Your task to perform on an android device: What's on my calendar tomorrow? Image 0: 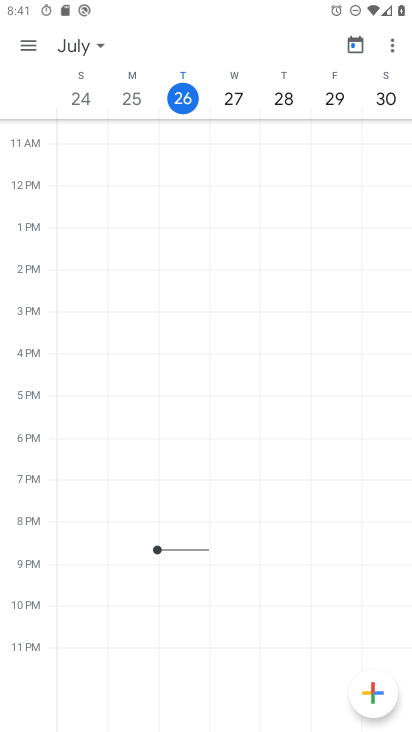
Step 0: click (227, 99)
Your task to perform on an android device: What's on my calendar tomorrow? Image 1: 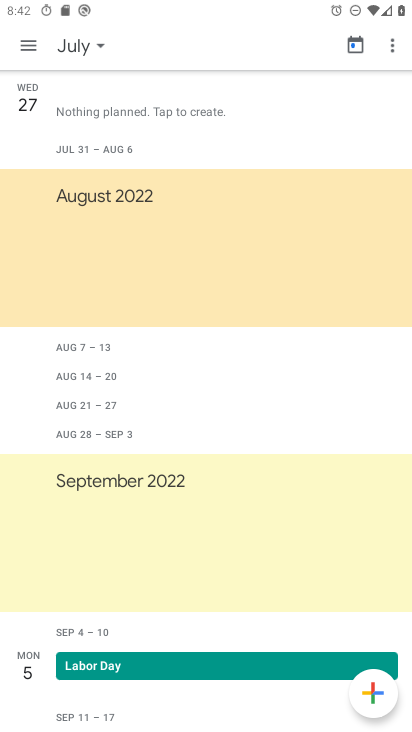
Step 1: click (33, 63)
Your task to perform on an android device: What's on my calendar tomorrow? Image 2: 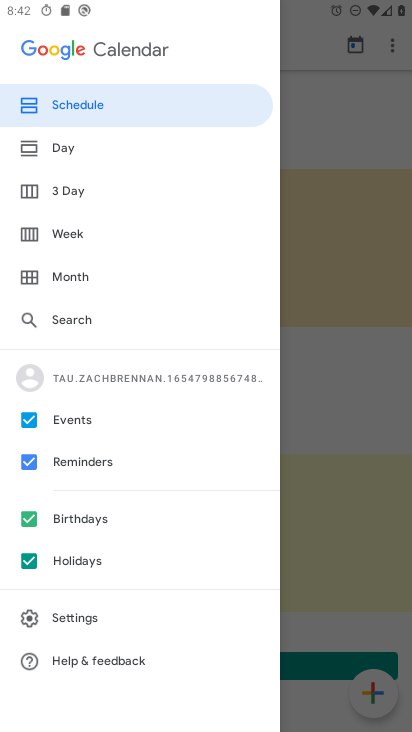
Step 2: click (51, 151)
Your task to perform on an android device: What's on my calendar tomorrow? Image 3: 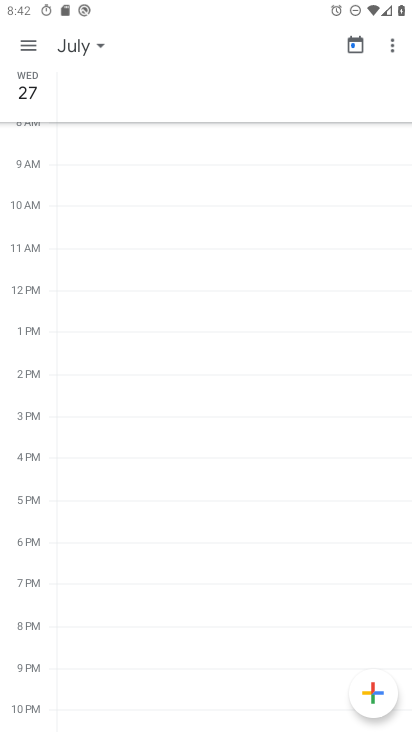
Step 3: click (85, 44)
Your task to perform on an android device: What's on my calendar tomorrow? Image 4: 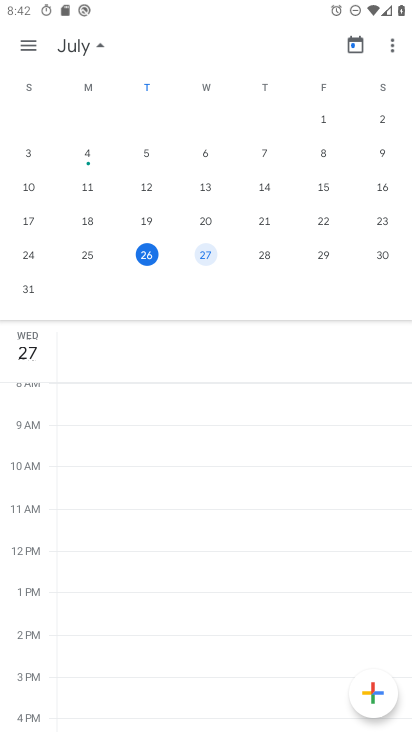
Step 4: drag from (210, 249) to (265, 258)
Your task to perform on an android device: What's on my calendar tomorrow? Image 5: 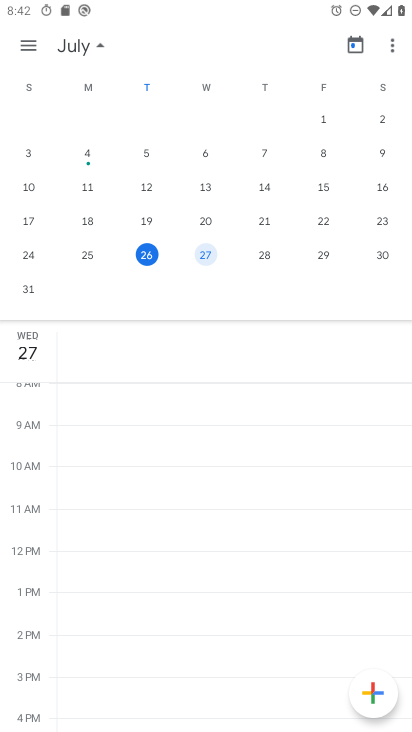
Step 5: click (262, 259)
Your task to perform on an android device: What's on my calendar tomorrow? Image 6: 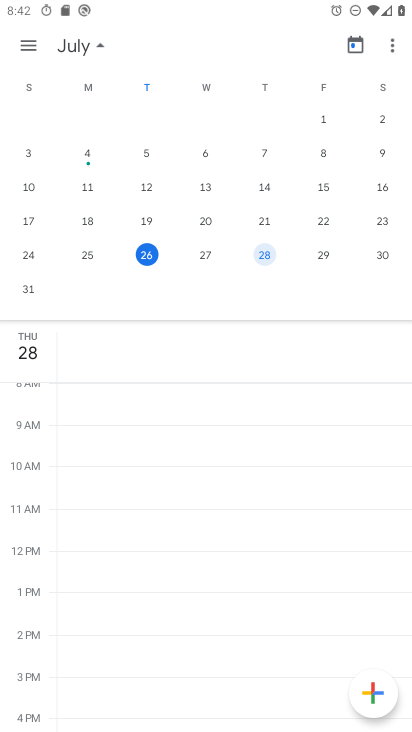
Step 6: click (96, 41)
Your task to perform on an android device: What's on my calendar tomorrow? Image 7: 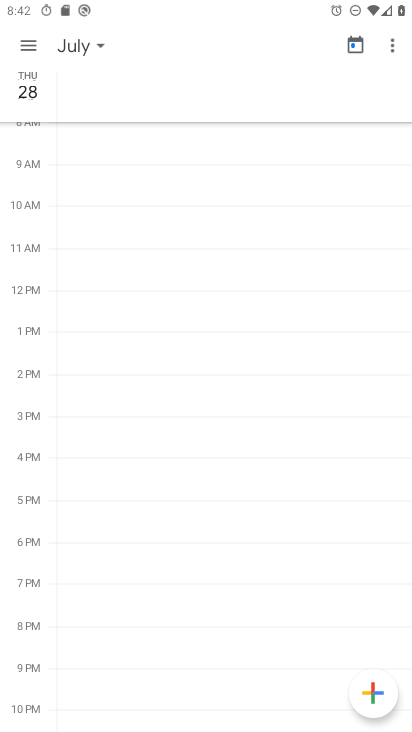
Step 7: task complete